Your task to perform on an android device: Open the phone app and click the voicemail tab. Image 0: 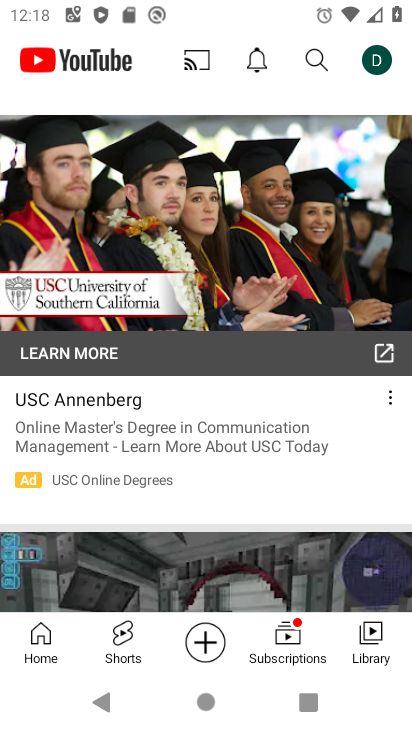
Step 0: press home button
Your task to perform on an android device: Open the phone app and click the voicemail tab. Image 1: 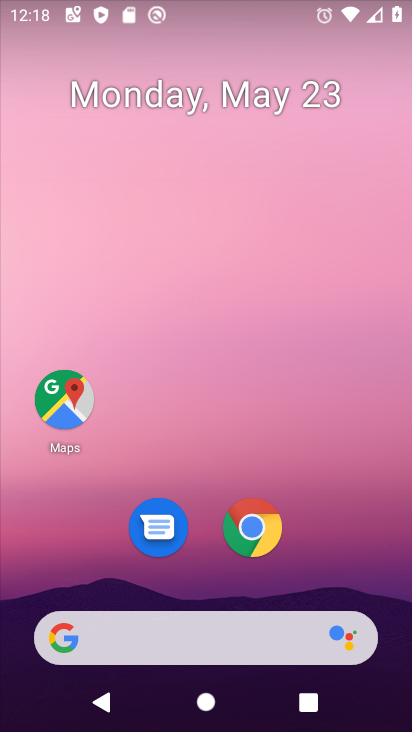
Step 1: drag from (342, 554) to (299, 165)
Your task to perform on an android device: Open the phone app and click the voicemail tab. Image 2: 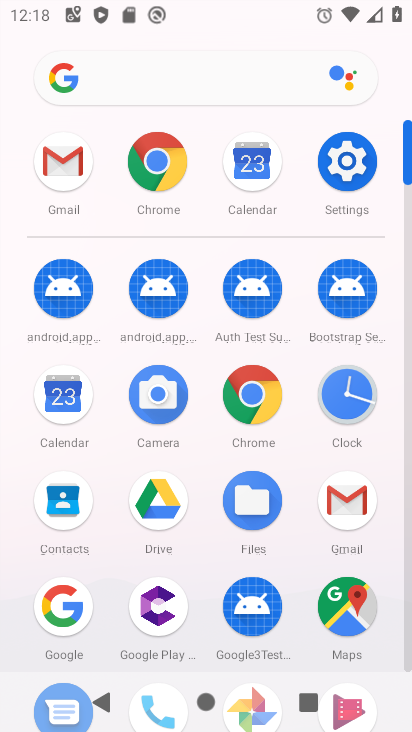
Step 2: click (408, 664)
Your task to perform on an android device: Open the phone app and click the voicemail tab. Image 3: 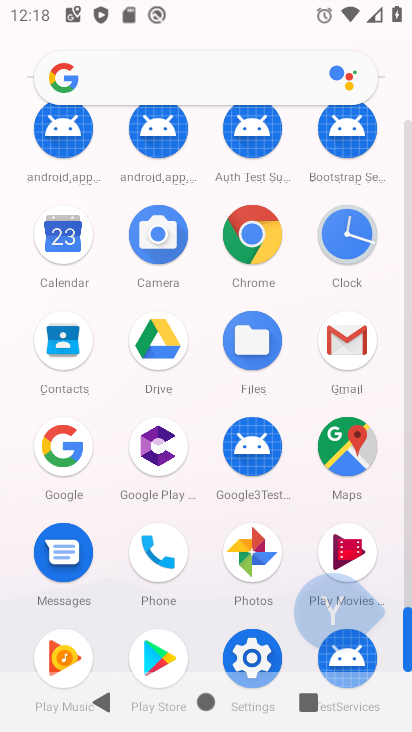
Step 3: click (408, 664)
Your task to perform on an android device: Open the phone app and click the voicemail tab. Image 4: 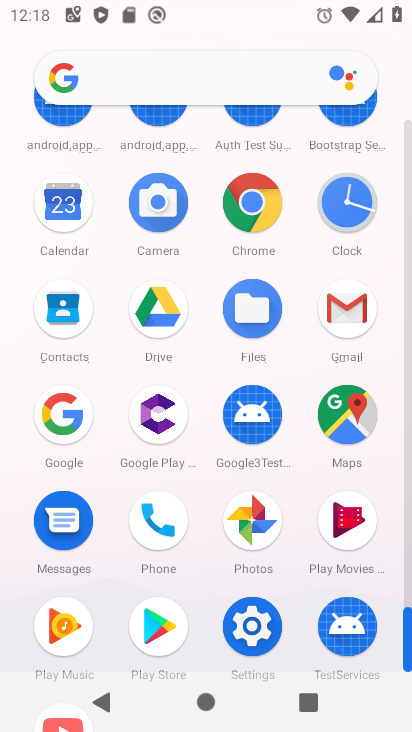
Step 4: click (156, 549)
Your task to perform on an android device: Open the phone app and click the voicemail tab. Image 5: 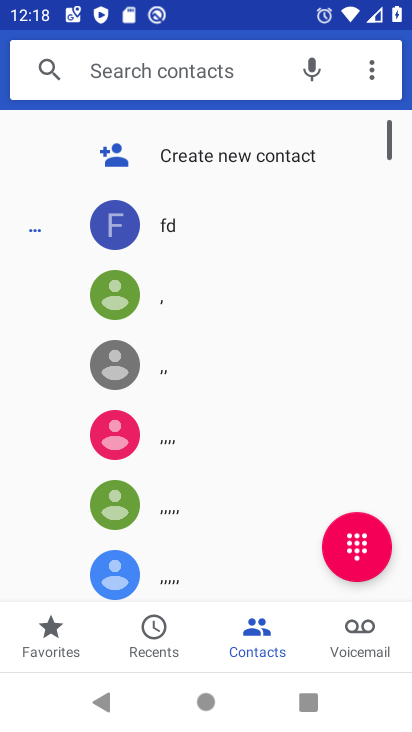
Step 5: click (352, 637)
Your task to perform on an android device: Open the phone app and click the voicemail tab. Image 6: 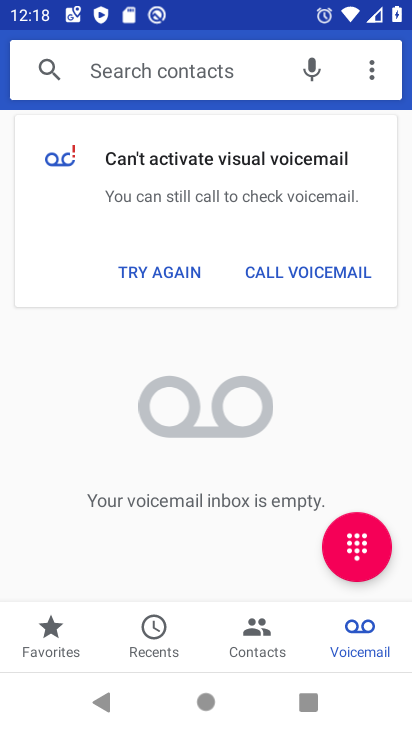
Step 6: task complete